Your task to perform on an android device: Clear the cart on ebay. Search for "panasonic triple a" on ebay, select the first entry, and add it to the cart. Image 0: 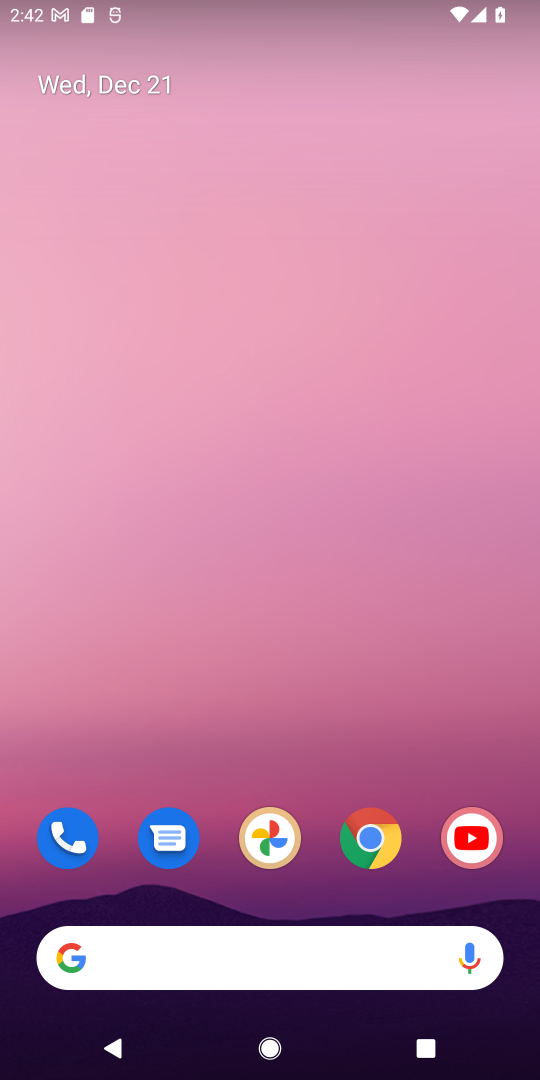
Step 0: click (306, 962)
Your task to perform on an android device: Clear the cart on ebay. Search for "panasonic triple a" on ebay, select the first entry, and add it to the cart. Image 1: 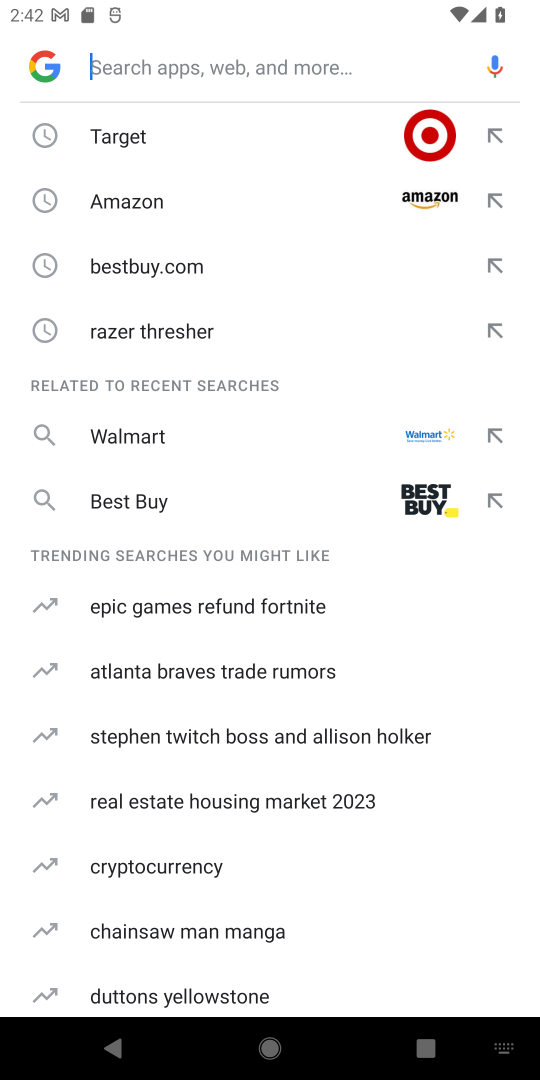
Step 1: type "ebay.com"
Your task to perform on an android device: Clear the cart on ebay. Search for "panasonic triple a" on ebay, select the first entry, and add it to the cart. Image 2: 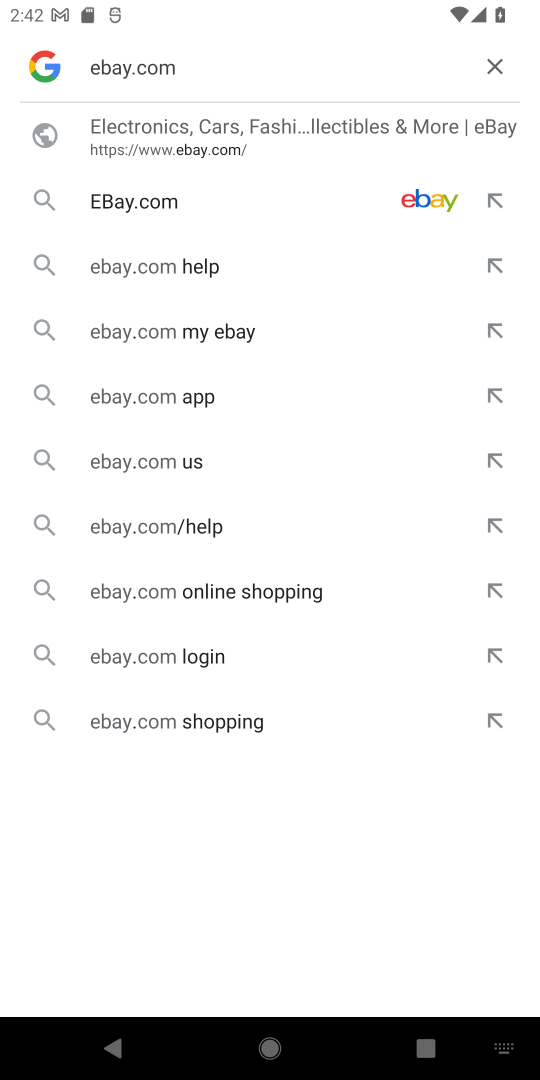
Step 2: click (250, 134)
Your task to perform on an android device: Clear the cart on ebay. Search for "panasonic triple a" on ebay, select the first entry, and add it to the cart. Image 3: 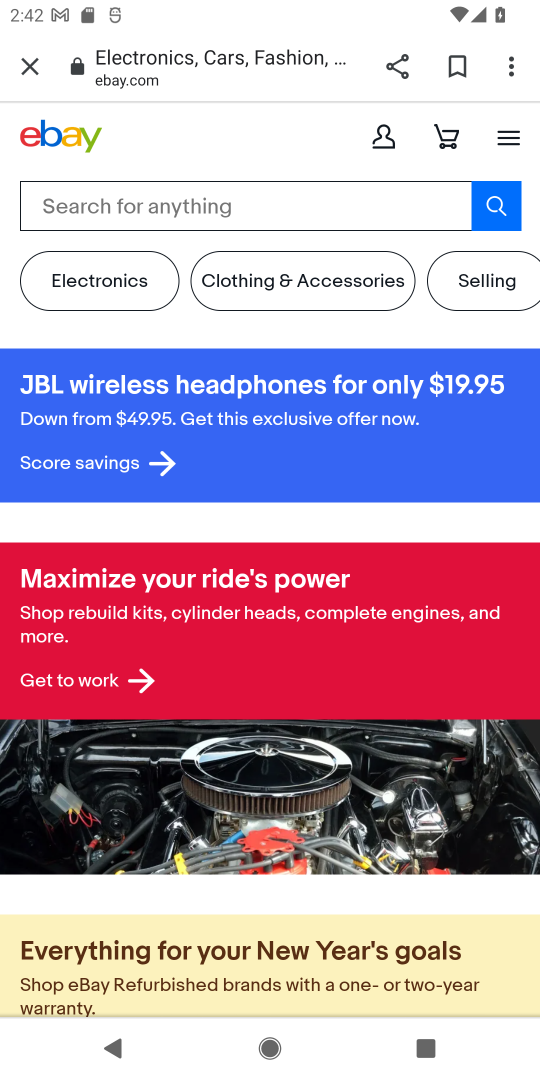
Step 3: click (291, 200)
Your task to perform on an android device: Clear the cart on ebay. Search for "panasonic triple a" on ebay, select the first entry, and add it to the cart. Image 4: 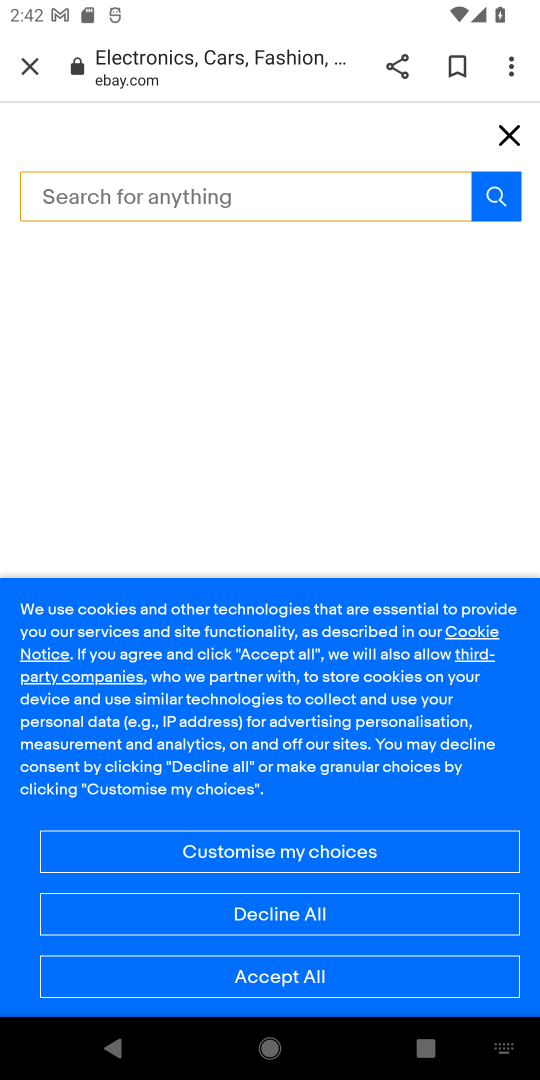
Step 4: type "panasonic triple a"
Your task to perform on an android device: Clear the cart on ebay. Search for "panasonic triple a" on ebay, select the first entry, and add it to the cart. Image 5: 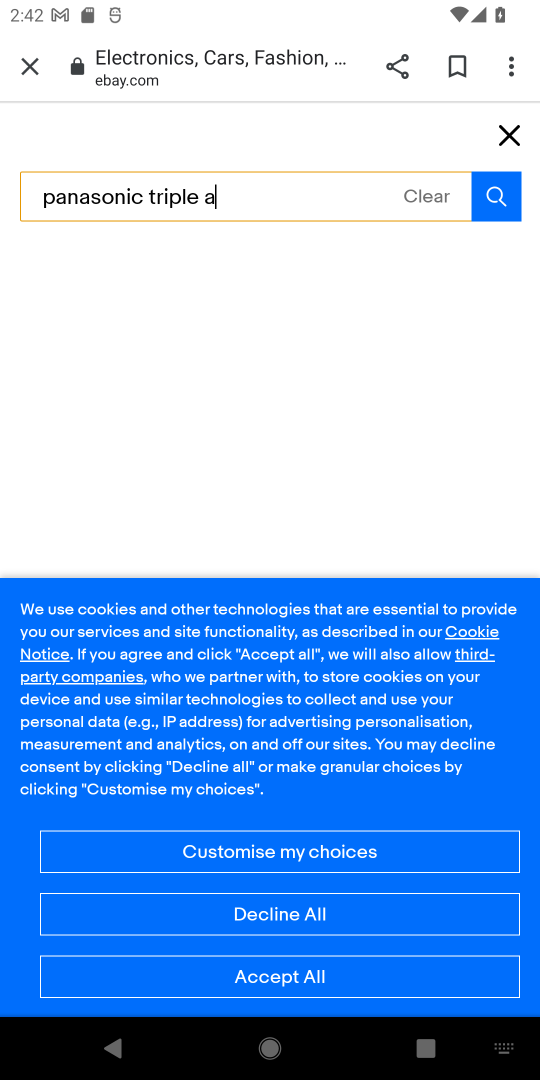
Step 5: click (492, 202)
Your task to perform on an android device: Clear the cart on ebay. Search for "panasonic triple a" on ebay, select the first entry, and add it to the cart. Image 6: 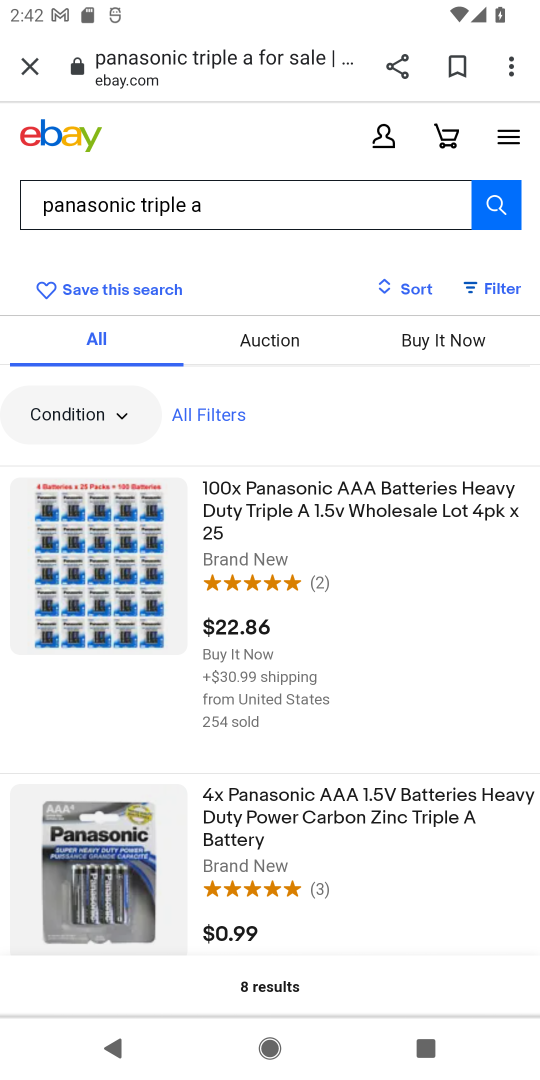
Step 6: click (245, 501)
Your task to perform on an android device: Clear the cart on ebay. Search for "panasonic triple a" on ebay, select the first entry, and add it to the cart. Image 7: 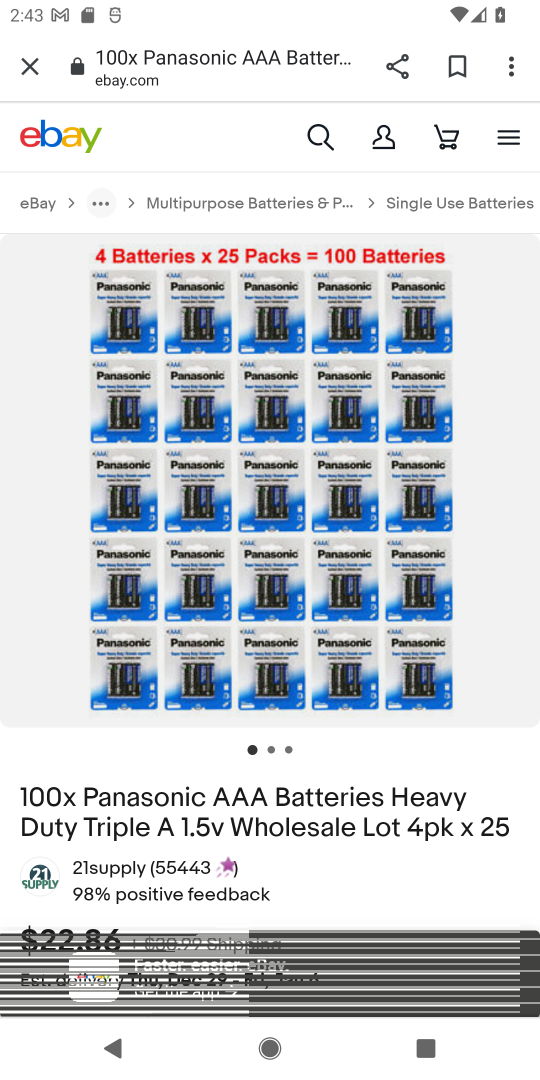
Step 7: drag from (291, 604) to (349, 207)
Your task to perform on an android device: Clear the cart on ebay. Search for "panasonic triple a" on ebay, select the first entry, and add it to the cart. Image 8: 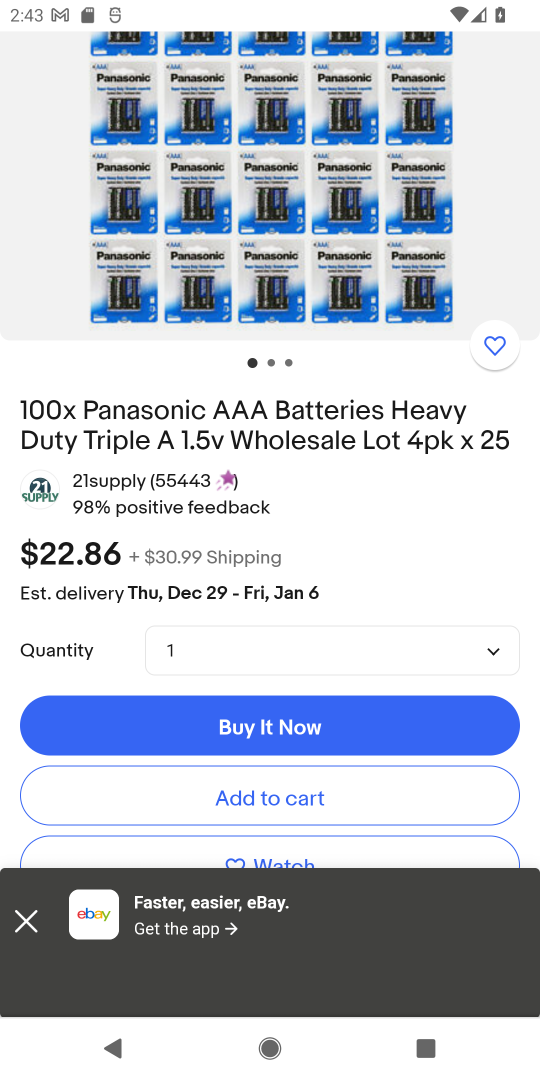
Step 8: click (267, 807)
Your task to perform on an android device: Clear the cart on ebay. Search for "panasonic triple a" on ebay, select the first entry, and add it to the cart. Image 9: 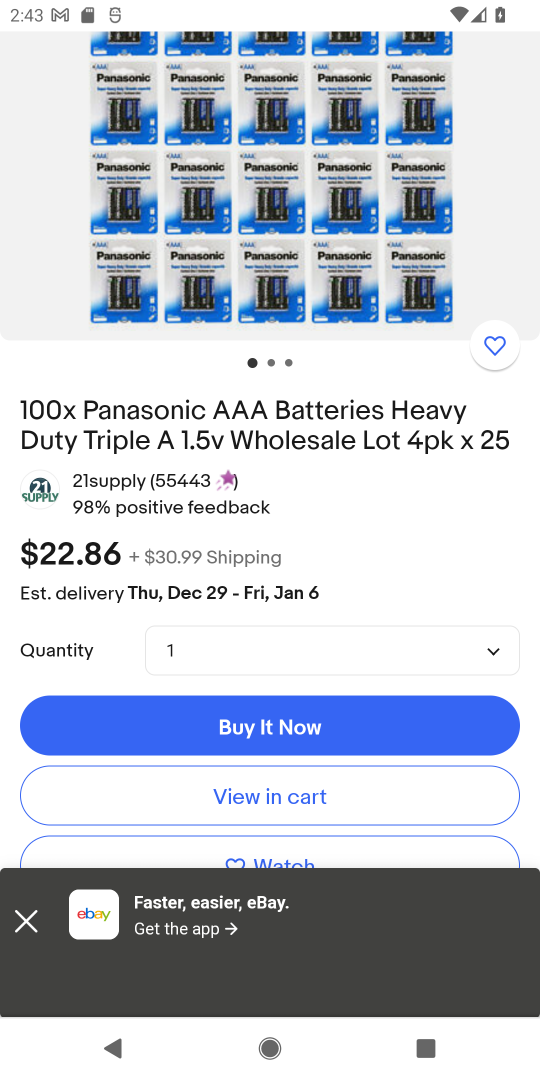
Step 9: task complete